Your task to perform on an android device: Go to Yahoo.com Image 0: 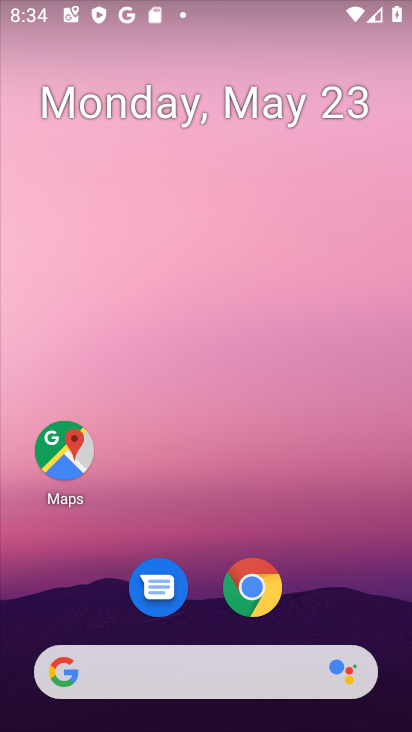
Step 0: click (261, 578)
Your task to perform on an android device: Go to Yahoo.com Image 1: 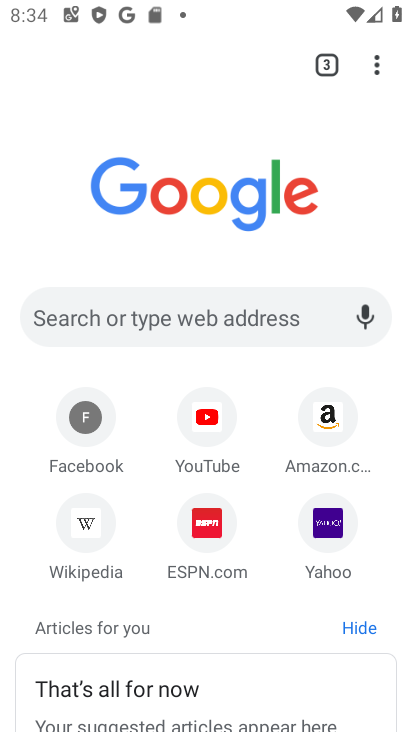
Step 1: click (330, 526)
Your task to perform on an android device: Go to Yahoo.com Image 2: 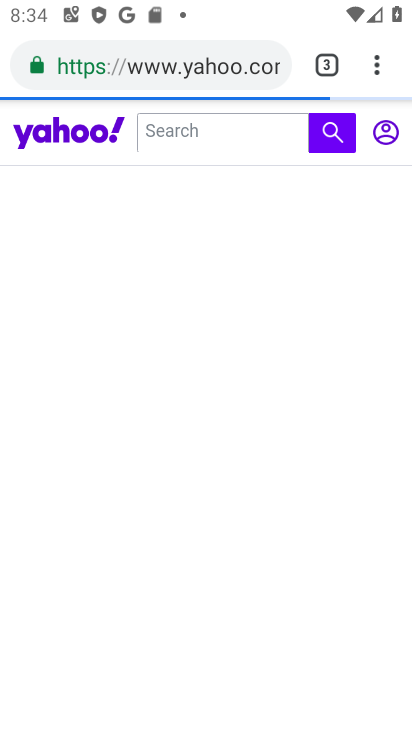
Step 2: task complete